Your task to perform on an android device: Show me popular games on the Play Store Image 0: 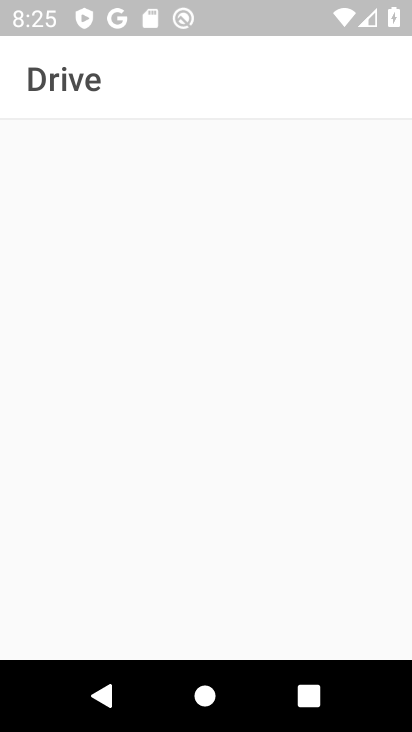
Step 0: press back button
Your task to perform on an android device: Show me popular games on the Play Store Image 1: 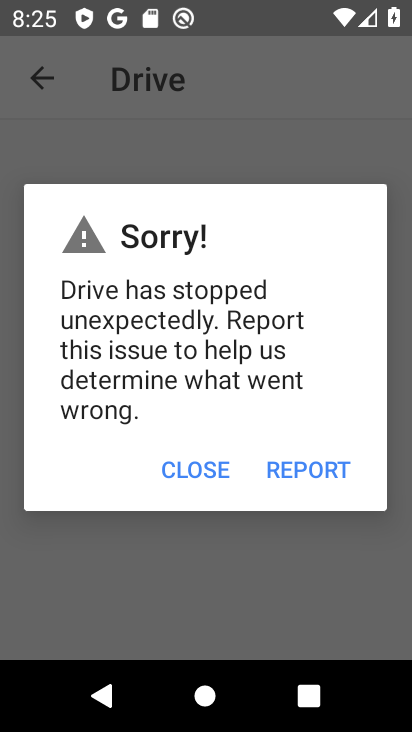
Step 1: click (169, 468)
Your task to perform on an android device: Show me popular games on the Play Store Image 2: 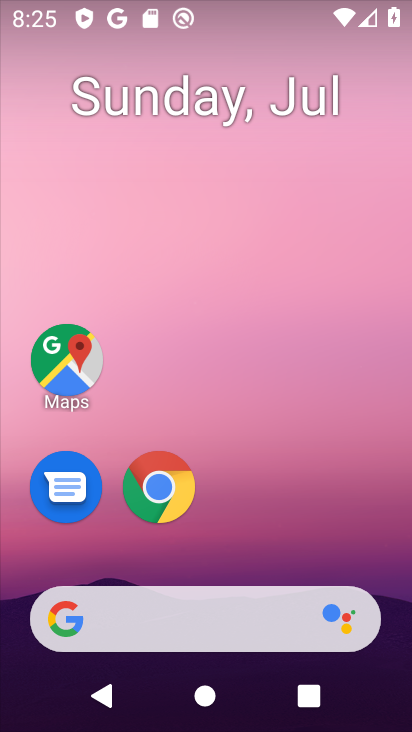
Step 2: drag from (230, 552) to (353, 40)
Your task to perform on an android device: Show me popular games on the Play Store Image 3: 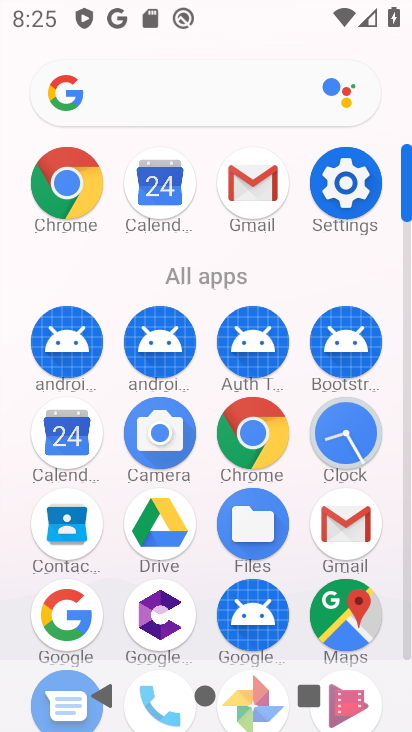
Step 3: drag from (162, 618) to (234, 218)
Your task to perform on an android device: Show me popular games on the Play Store Image 4: 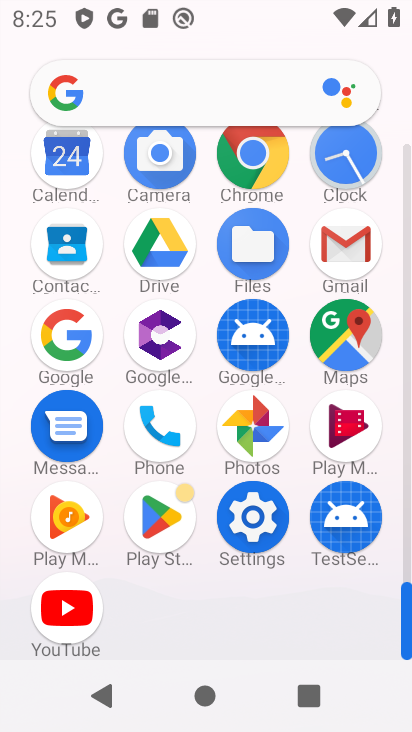
Step 4: click (171, 523)
Your task to perform on an android device: Show me popular games on the Play Store Image 5: 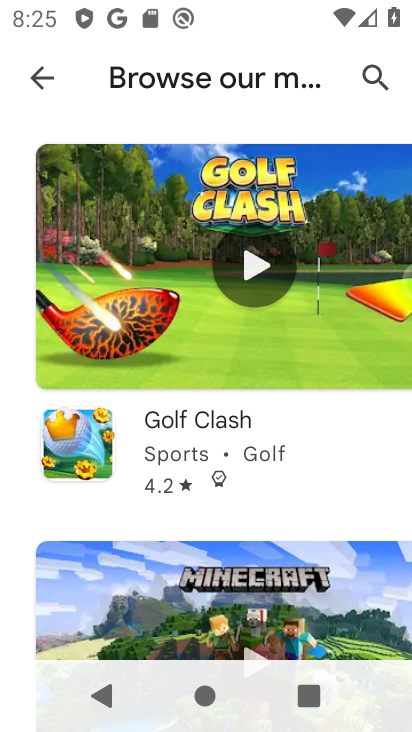
Step 5: task complete